Your task to perform on an android device: Go to Amazon Image 0: 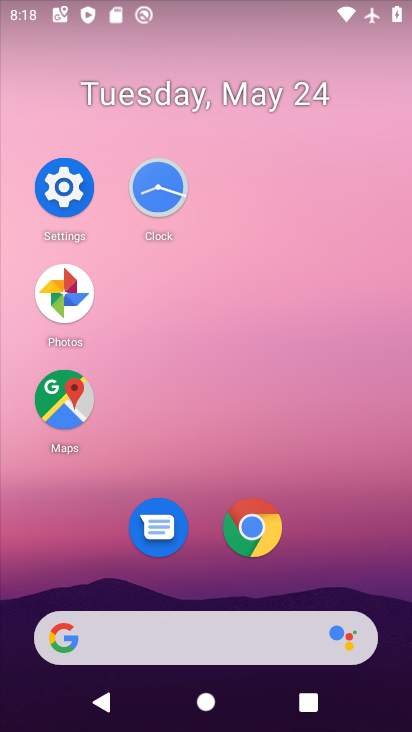
Step 0: click (261, 529)
Your task to perform on an android device: Go to Amazon Image 1: 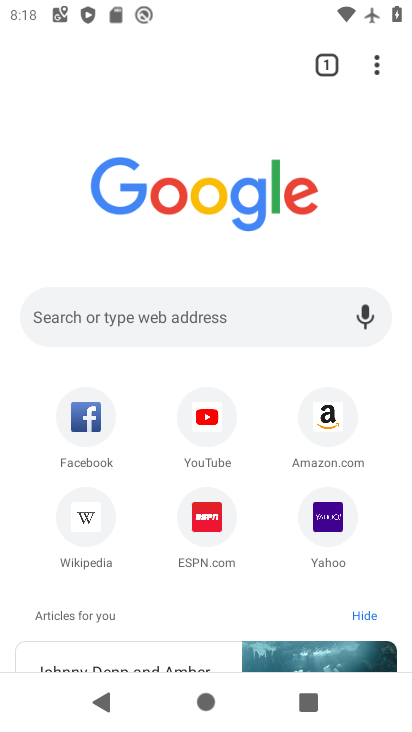
Step 1: click (329, 419)
Your task to perform on an android device: Go to Amazon Image 2: 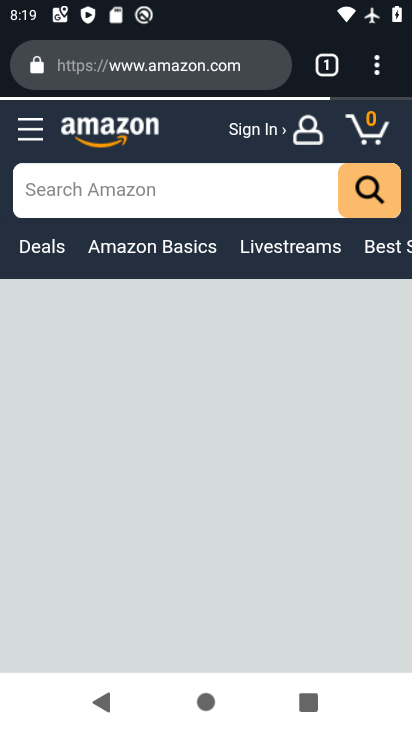
Step 2: task complete